Your task to perform on an android device: turn on bluetooth scan Image 0: 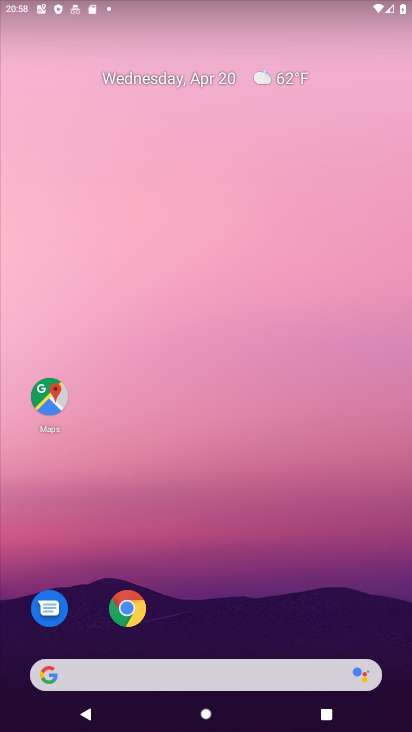
Step 0: drag from (313, 580) to (366, 22)
Your task to perform on an android device: turn on bluetooth scan Image 1: 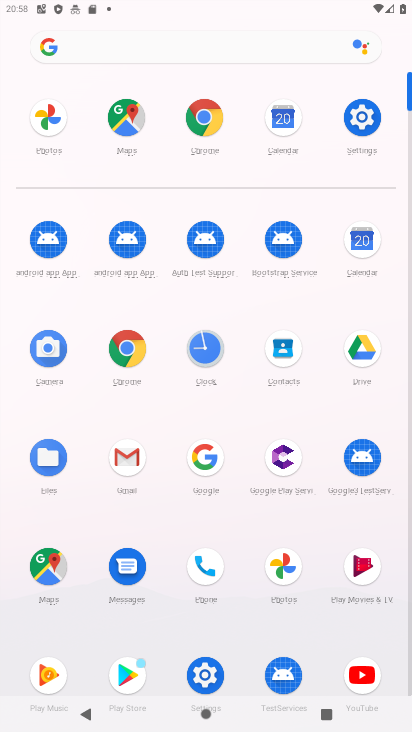
Step 1: click (195, 672)
Your task to perform on an android device: turn on bluetooth scan Image 2: 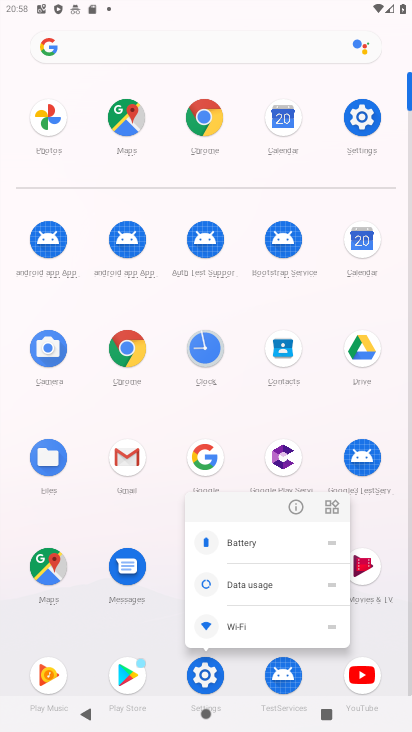
Step 2: click (206, 665)
Your task to perform on an android device: turn on bluetooth scan Image 3: 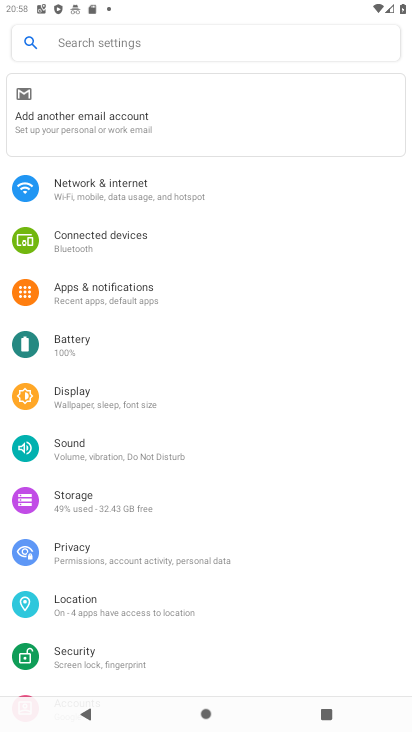
Step 3: click (188, 619)
Your task to perform on an android device: turn on bluetooth scan Image 4: 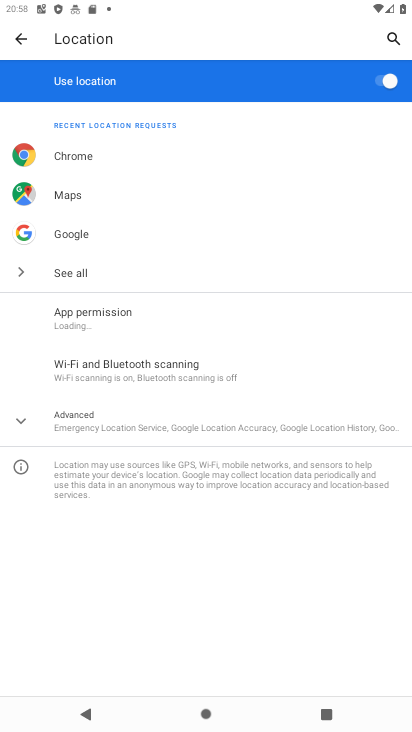
Step 4: click (96, 376)
Your task to perform on an android device: turn on bluetooth scan Image 5: 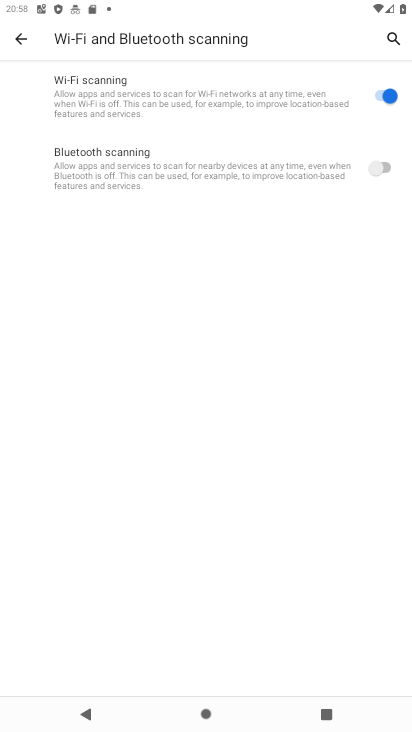
Step 5: click (356, 173)
Your task to perform on an android device: turn on bluetooth scan Image 6: 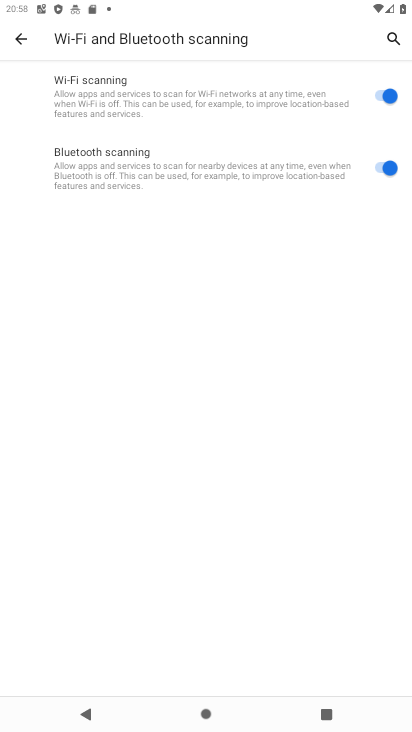
Step 6: task complete